Your task to perform on an android device: Do I have any events tomorrow? Image 0: 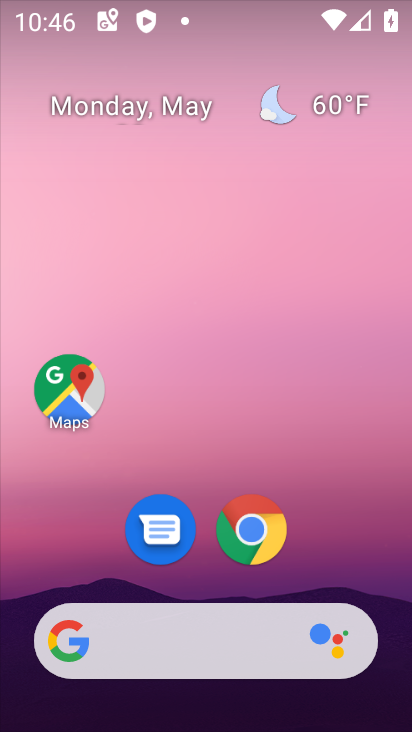
Step 0: drag from (321, 539) to (226, 39)
Your task to perform on an android device: Do I have any events tomorrow? Image 1: 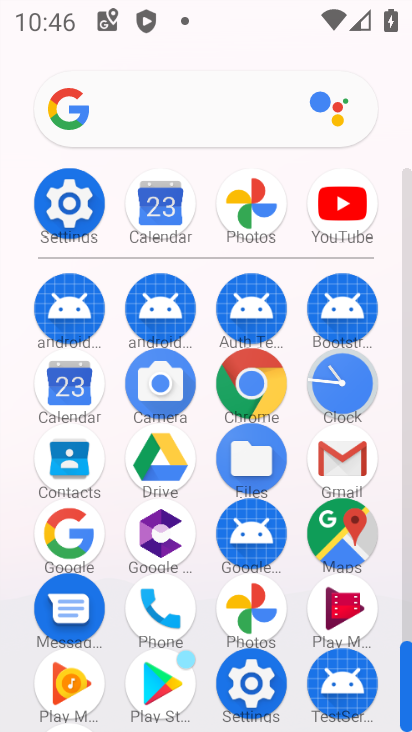
Step 1: click (69, 382)
Your task to perform on an android device: Do I have any events tomorrow? Image 2: 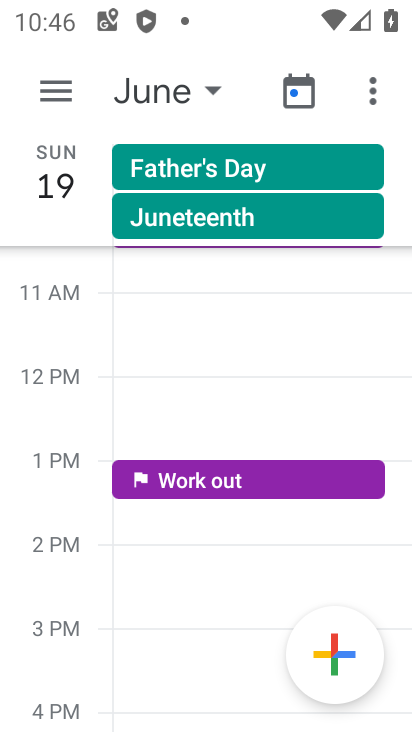
Step 2: click (44, 90)
Your task to perform on an android device: Do I have any events tomorrow? Image 3: 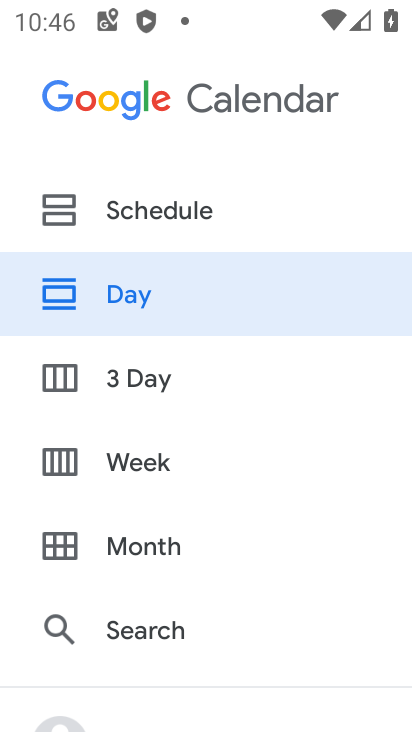
Step 3: click (138, 287)
Your task to perform on an android device: Do I have any events tomorrow? Image 4: 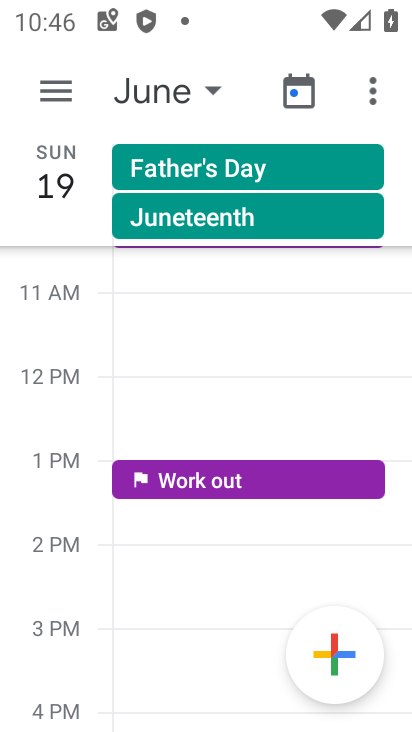
Step 4: click (215, 84)
Your task to perform on an android device: Do I have any events tomorrow? Image 5: 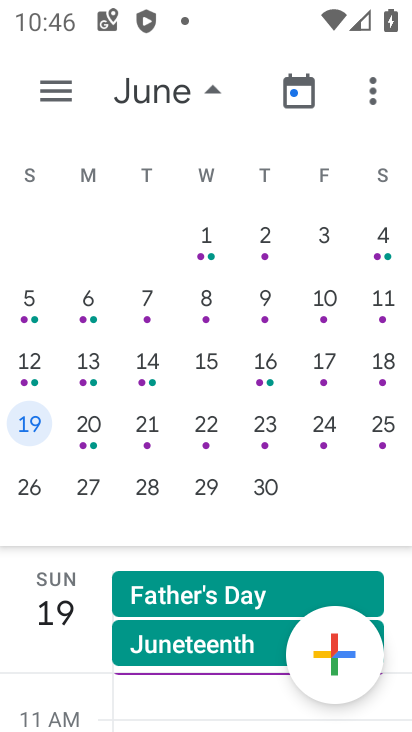
Step 5: drag from (38, 307) to (393, 484)
Your task to perform on an android device: Do I have any events tomorrow? Image 6: 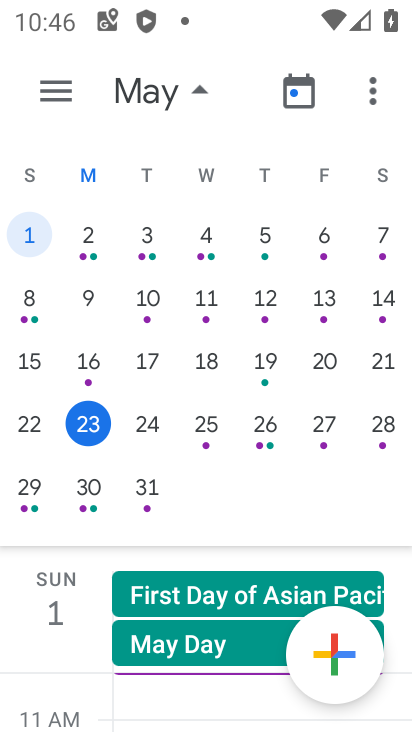
Step 6: click (142, 431)
Your task to perform on an android device: Do I have any events tomorrow? Image 7: 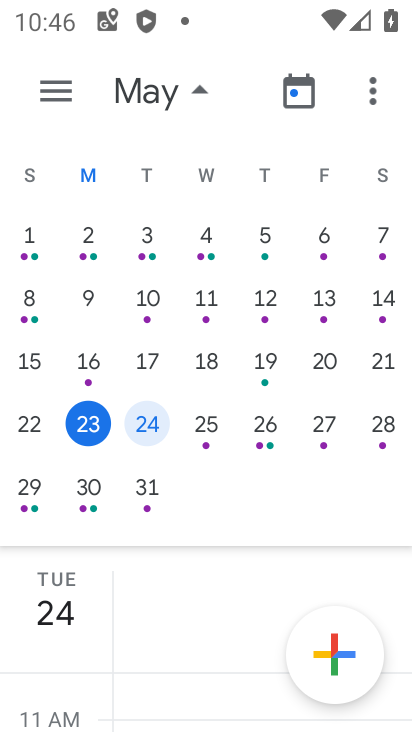
Step 7: click (145, 425)
Your task to perform on an android device: Do I have any events tomorrow? Image 8: 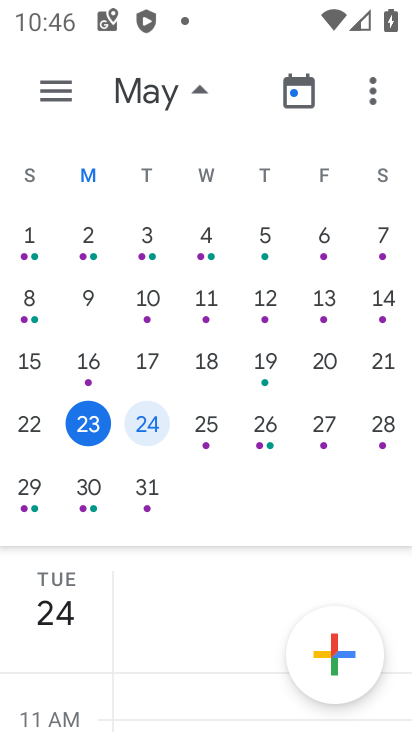
Step 8: task complete